Your task to perform on an android device: open a bookmark in the chrome app Image 0: 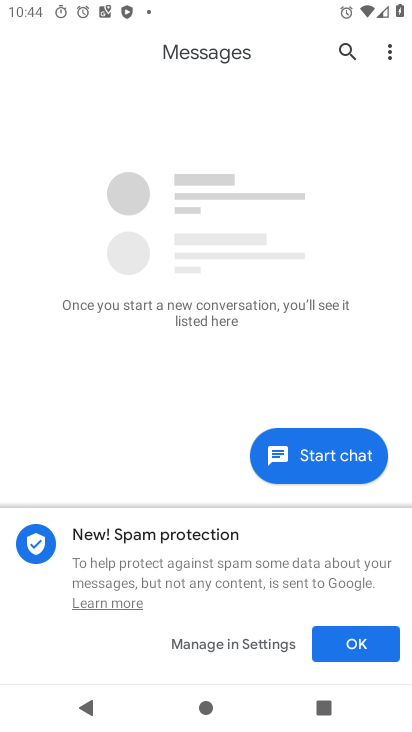
Step 0: press home button
Your task to perform on an android device: open a bookmark in the chrome app Image 1: 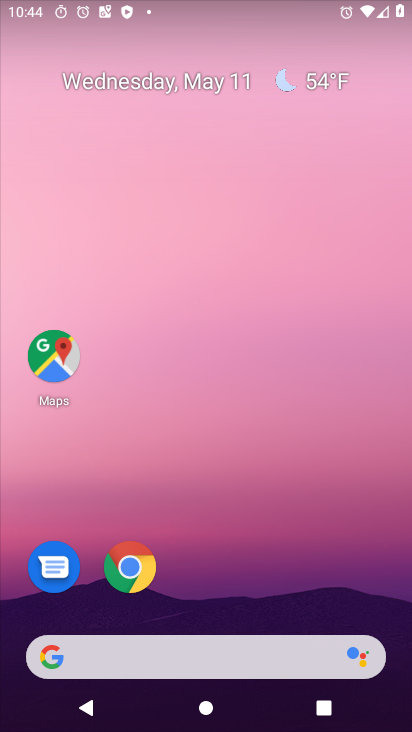
Step 1: click (137, 564)
Your task to perform on an android device: open a bookmark in the chrome app Image 2: 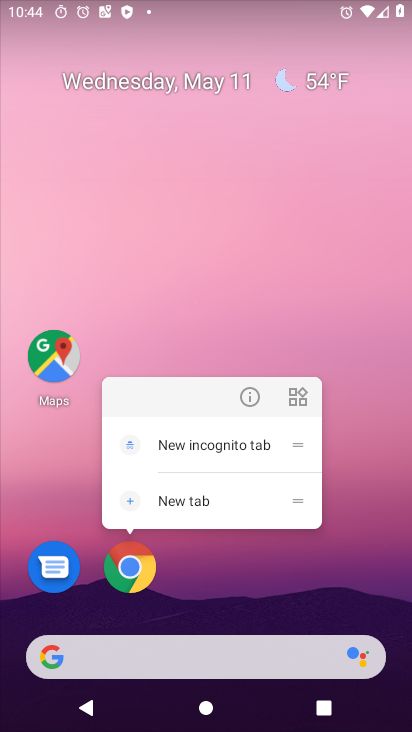
Step 2: click (142, 555)
Your task to perform on an android device: open a bookmark in the chrome app Image 3: 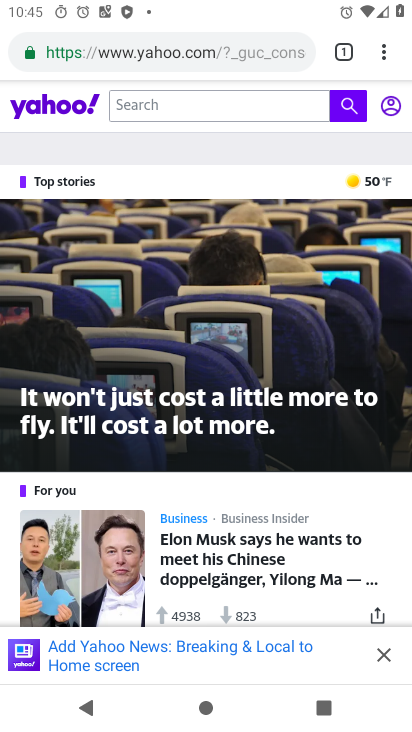
Step 3: click (381, 49)
Your task to perform on an android device: open a bookmark in the chrome app Image 4: 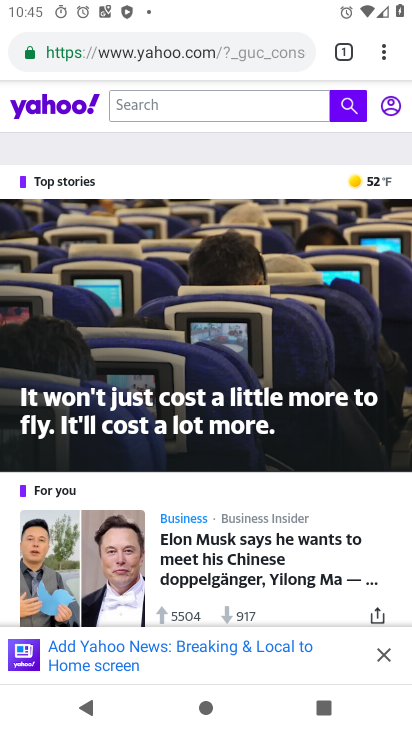
Step 4: click (387, 65)
Your task to perform on an android device: open a bookmark in the chrome app Image 5: 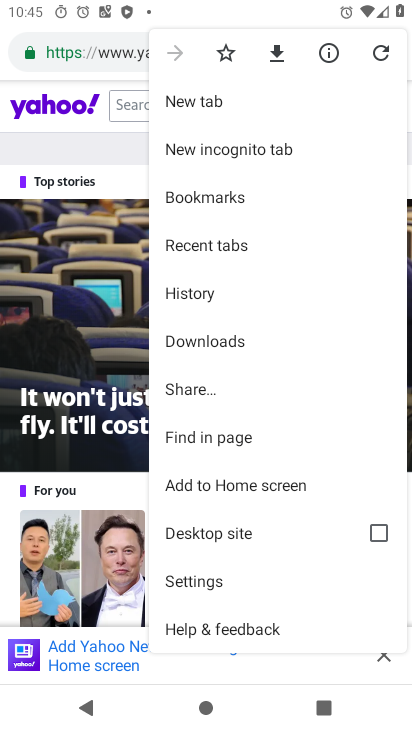
Step 5: click (216, 199)
Your task to perform on an android device: open a bookmark in the chrome app Image 6: 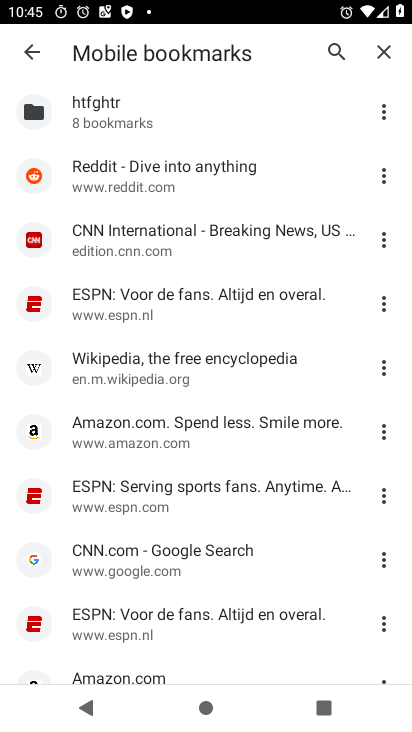
Step 6: click (145, 234)
Your task to perform on an android device: open a bookmark in the chrome app Image 7: 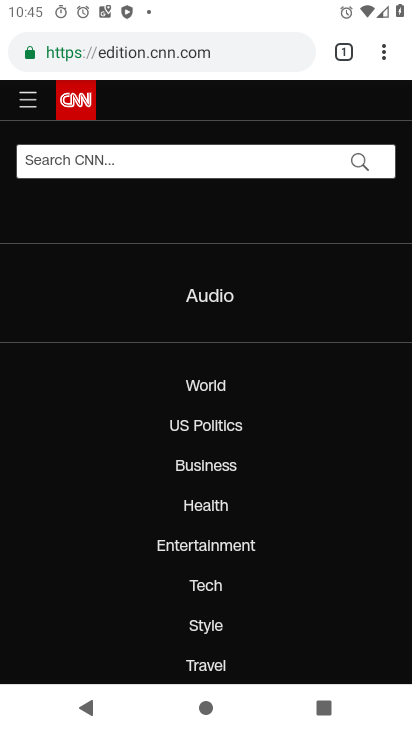
Step 7: task complete